Your task to perform on an android device: Show me popular games on the Play Store Image 0: 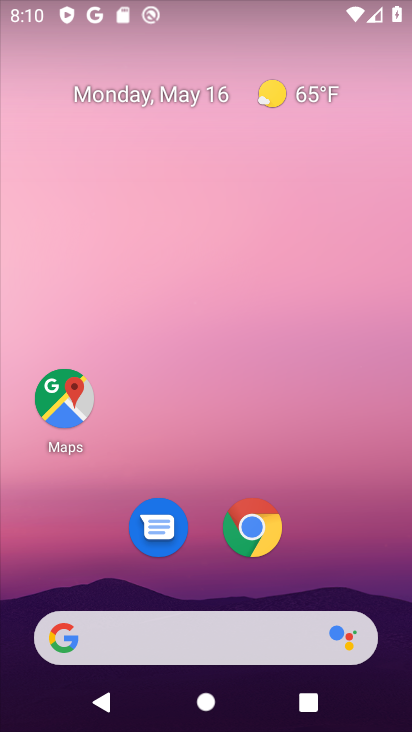
Step 0: drag from (310, 555) to (347, 202)
Your task to perform on an android device: Show me popular games on the Play Store Image 1: 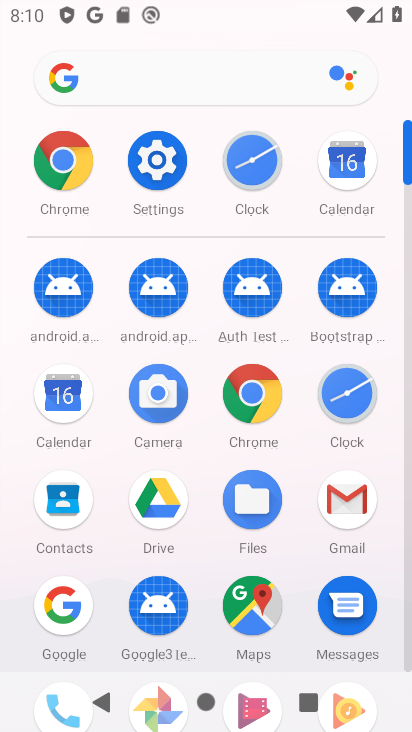
Step 1: drag from (176, 626) to (240, 363)
Your task to perform on an android device: Show me popular games on the Play Store Image 2: 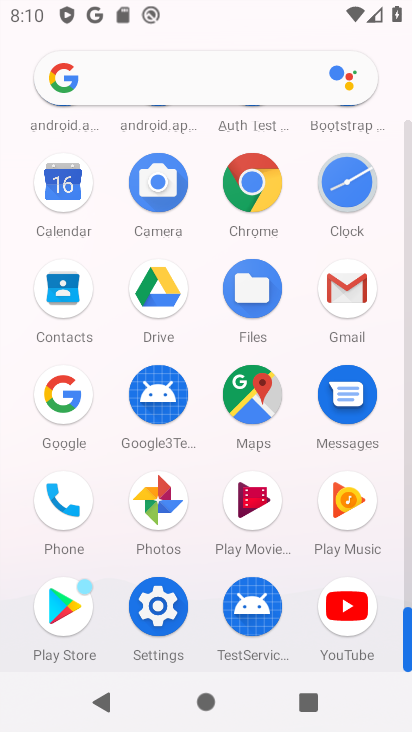
Step 2: click (70, 611)
Your task to perform on an android device: Show me popular games on the Play Store Image 3: 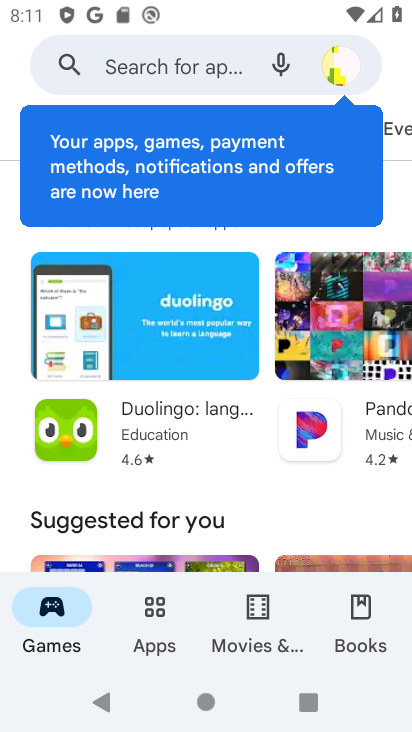
Step 3: task complete